Your task to perform on an android device: Go to Reddit.com Image 0: 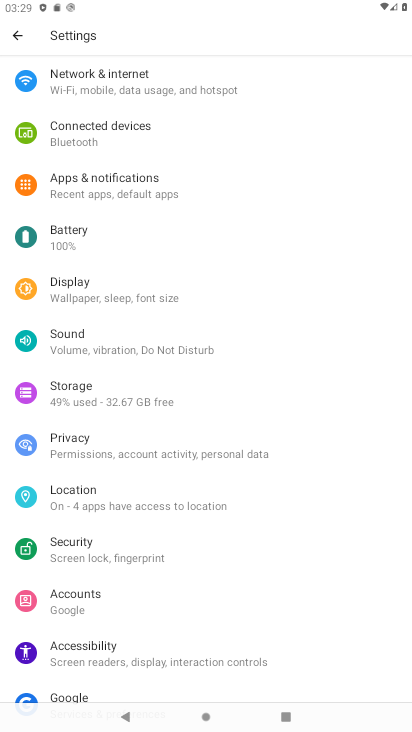
Step 0: press home button
Your task to perform on an android device: Go to Reddit.com Image 1: 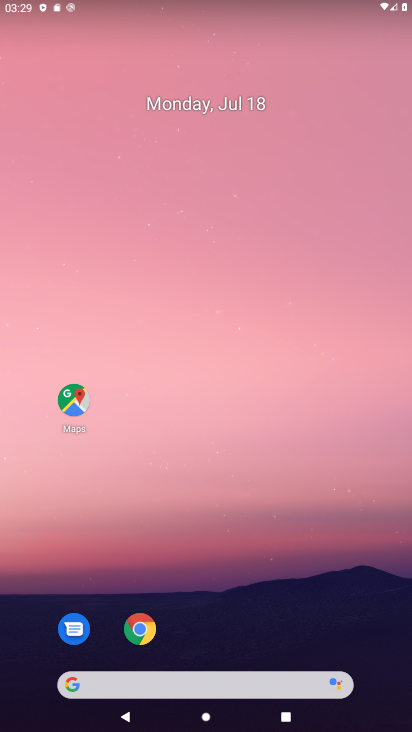
Step 1: drag from (391, 705) to (356, 162)
Your task to perform on an android device: Go to Reddit.com Image 2: 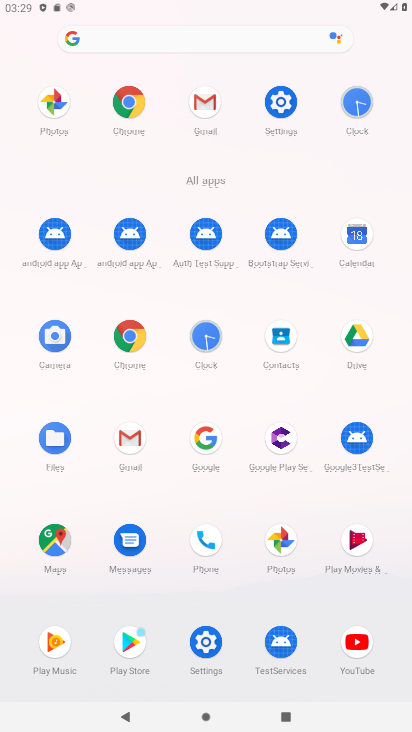
Step 2: click (133, 336)
Your task to perform on an android device: Go to Reddit.com Image 3: 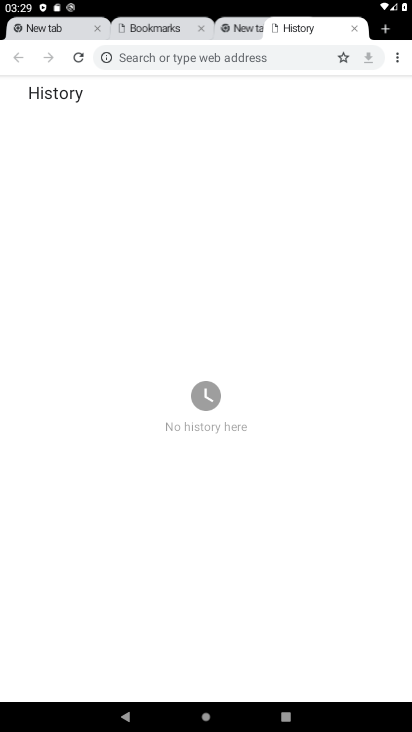
Step 3: click (223, 52)
Your task to perform on an android device: Go to Reddit.com Image 4: 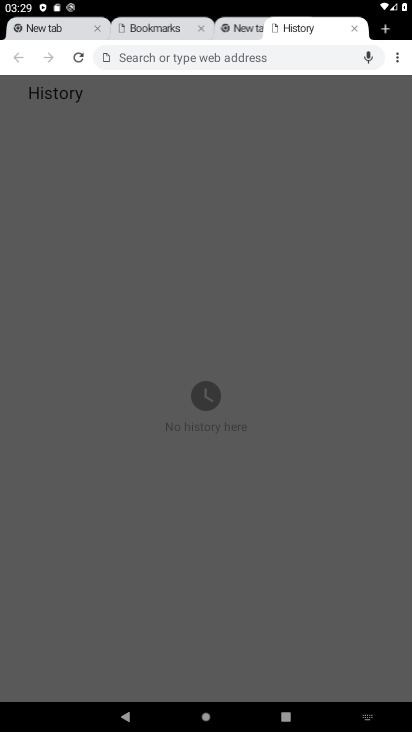
Step 4: type "Reddit.com"
Your task to perform on an android device: Go to Reddit.com Image 5: 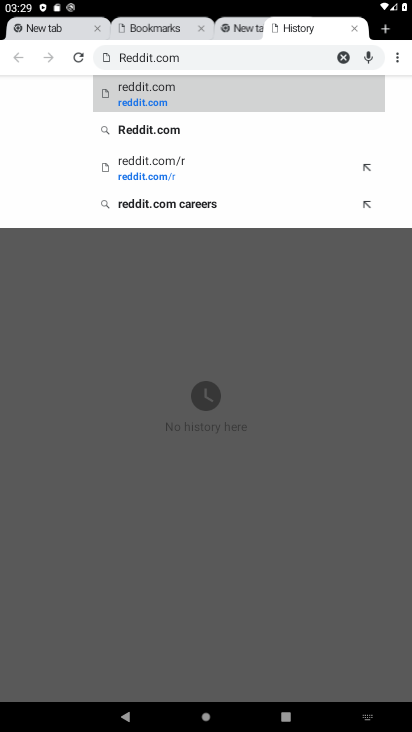
Step 5: click (151, 118)
Your task to perform on an android device: Go to Reddit.com Image 6: 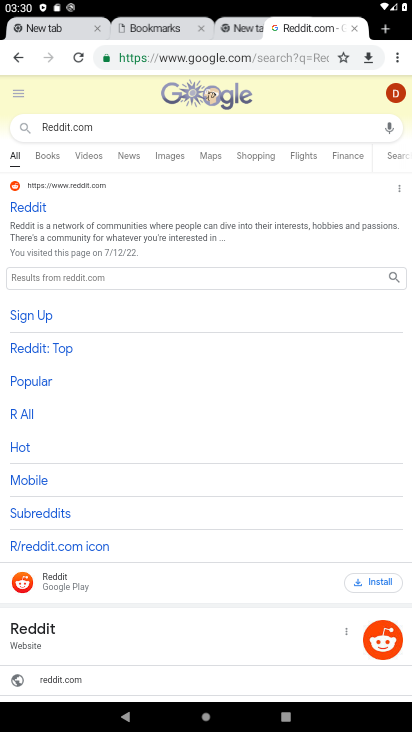
Step 6: task complete